Your task to perform on an android device: Open Amazon Image 0: 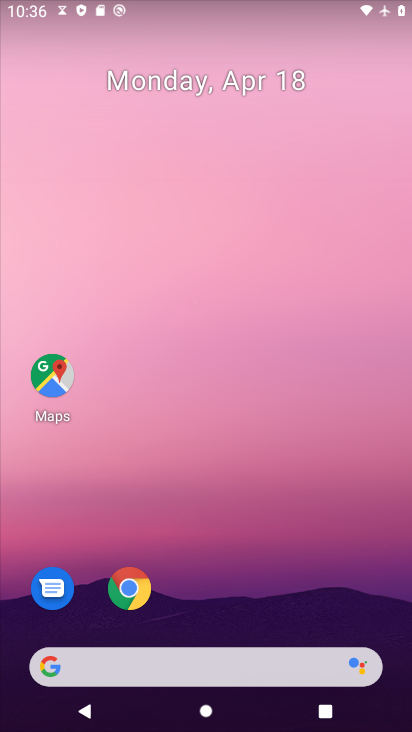
Step 0: drag from (252, 539) to (42, 292)
Your task to perform on an android device: Open Amazon Image 1: 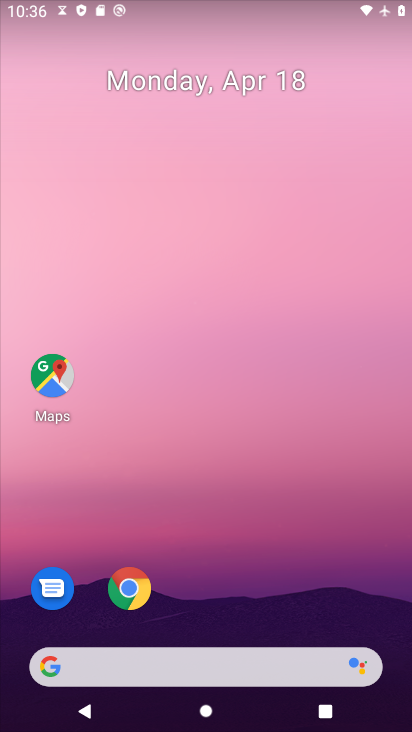
Step 1: click (135, 591)
Your task to perform on an android device: Open Amazon Image 2: 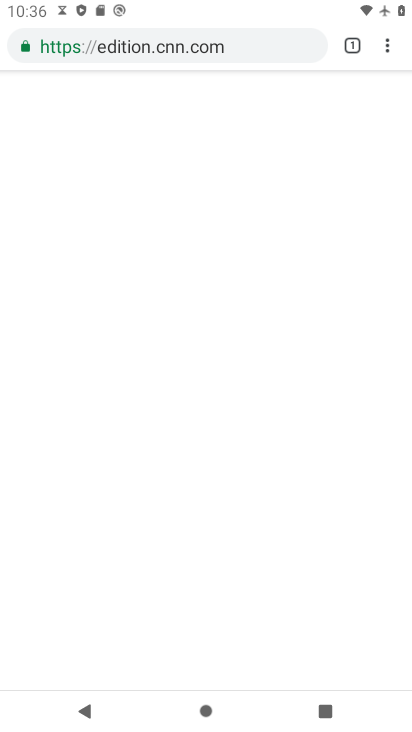
Step 2: click (183, 47)
Your task to perform on an android device: Open Amazon Image 3: 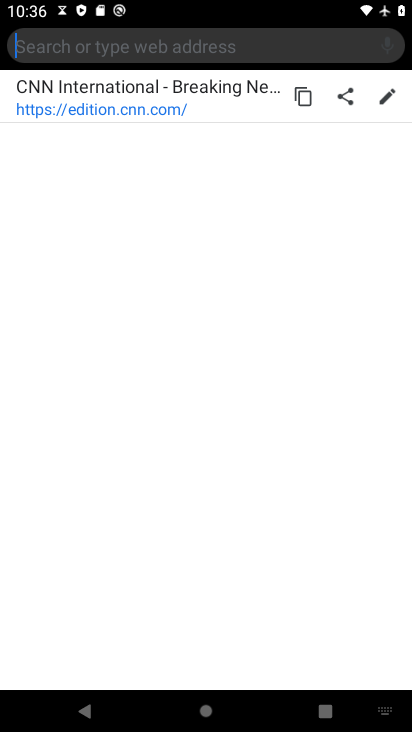
Step 3: type "Amazon"
Your task to perform on an android device: Open Amazon Image 4: 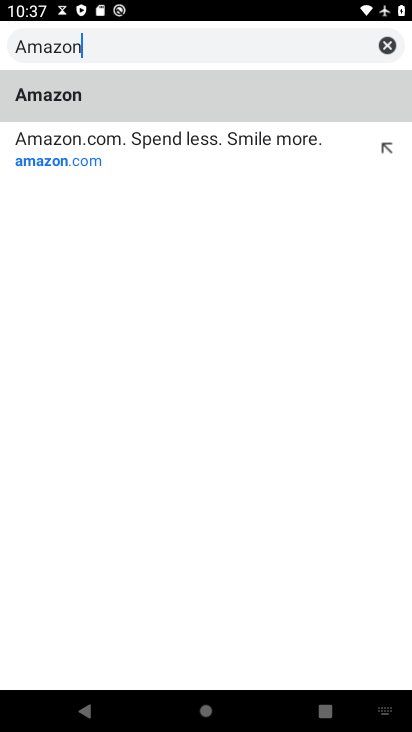
Step 4: click (43, 151)
Your task to perform on an android device: Open Amazon Image 5: 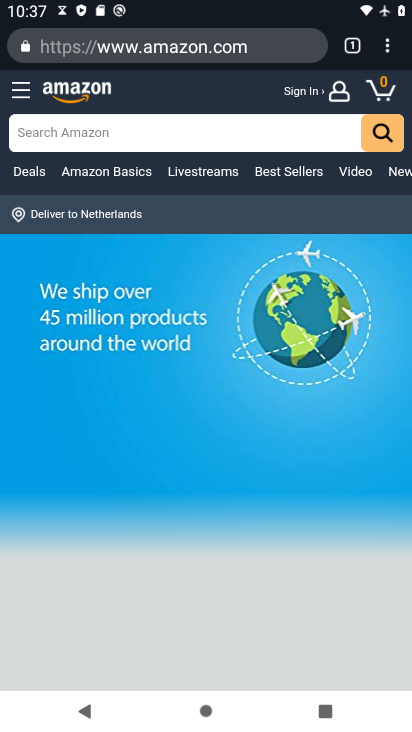
Step 5: task complete